Your task to perform on an android device: Open accessibility settings Image 0: 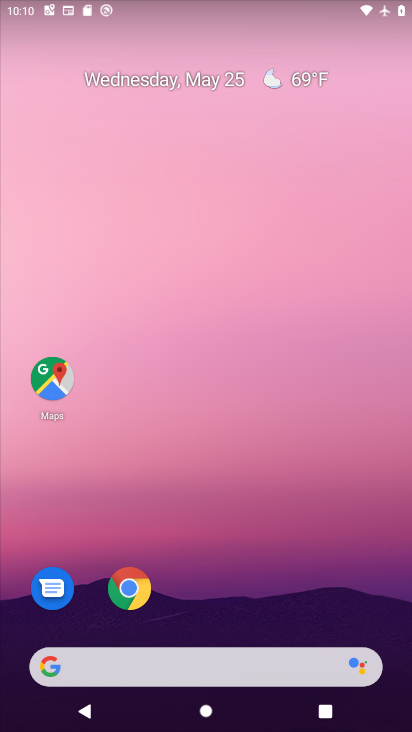
Step 0: drag from (370, 592) to (377, 161)
Your task to perform on an android device: Open accessibility settings Image 1: 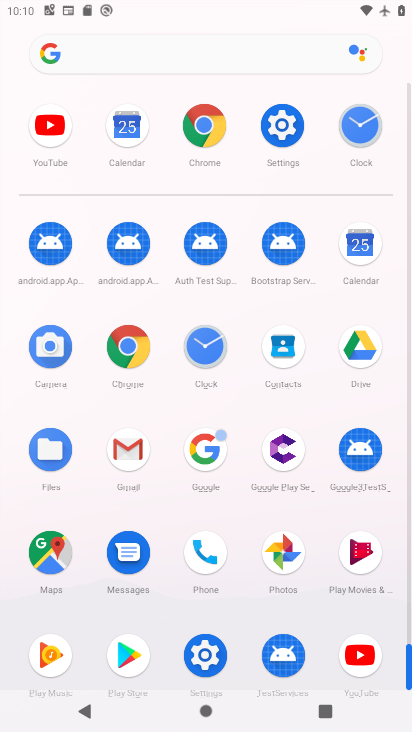
Step 1: click (290, 128)
Your task to perform on an android device: Open accessibility settings Image 2: 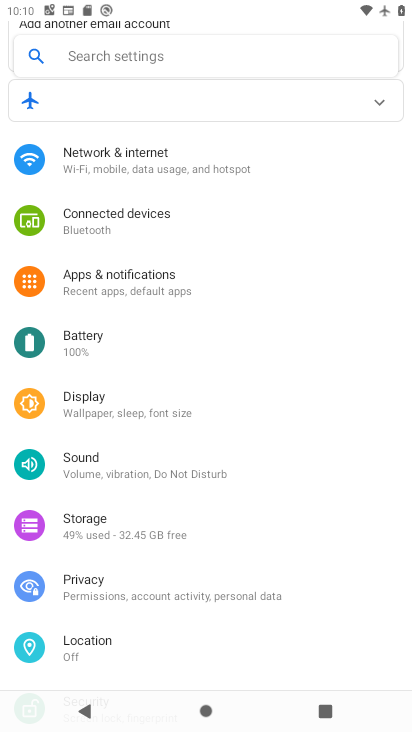
Step 2: drag from (338, 538) to (351, 377)
Your task to perform on an android device: Open accessibility settings Image 3: 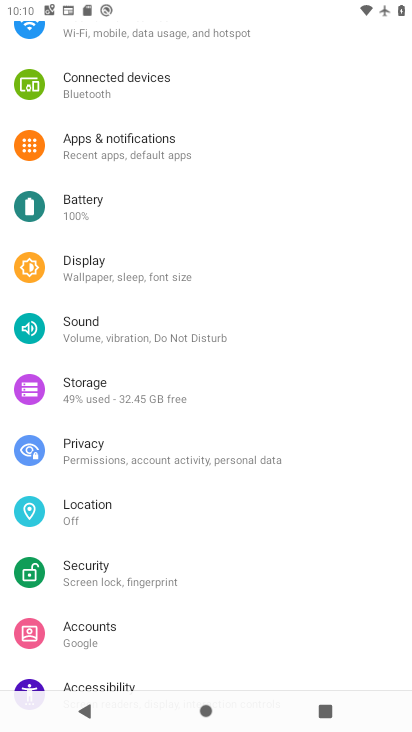
Step 3: drag from (338, 581) to (333, 438)
Your task to perform on an android device: Open accessibility settings Image 4: 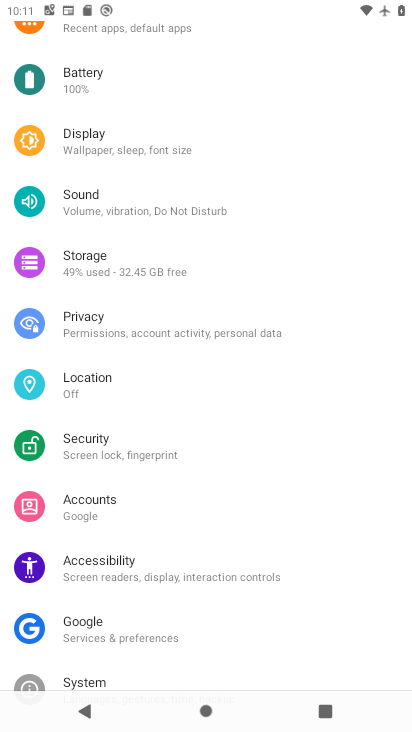
Step 4: drag from (299, 607) to (336, 478)
Your task to perform on an android device: Open accessibility settings Image 5: 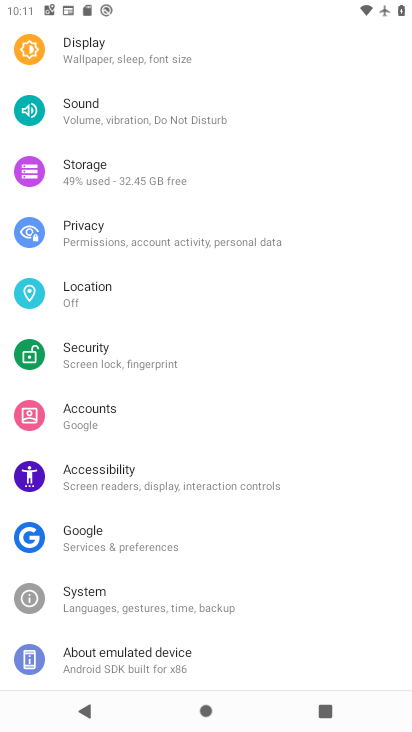
Step 5: drag from (328, 606) to (350, 497)
Your task to perform on an android device: Open accessibility settings Image 6: 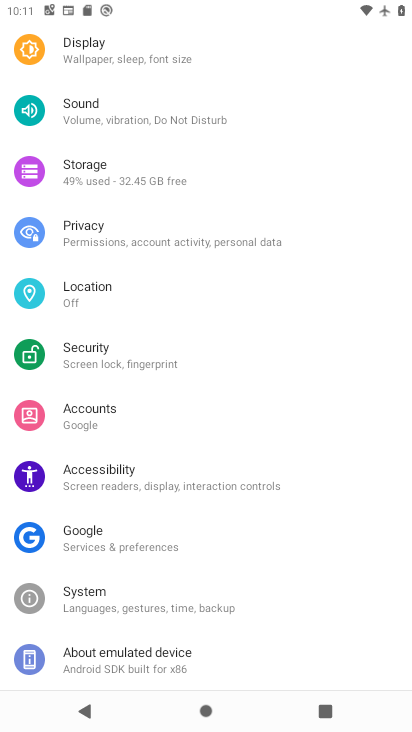
Step 6: drag from (344, 545) to (367, 382)
Your task to perform on an android device: Open accessibility settings Image 7: 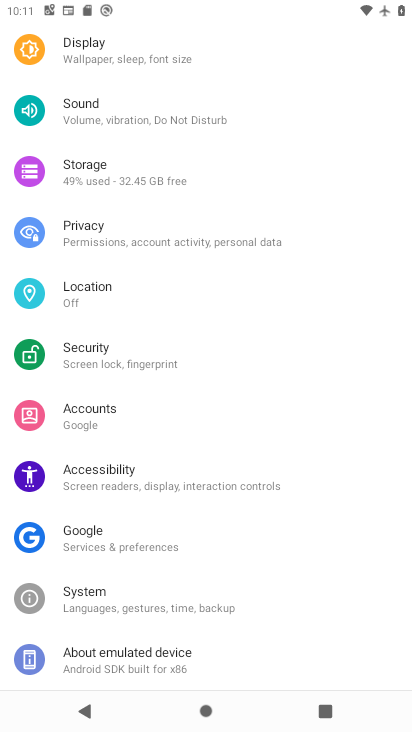
Step 7: drag from (357, 572) to (352, 419)
Your task to perform on an android device: Open accessibility settings Image 8: 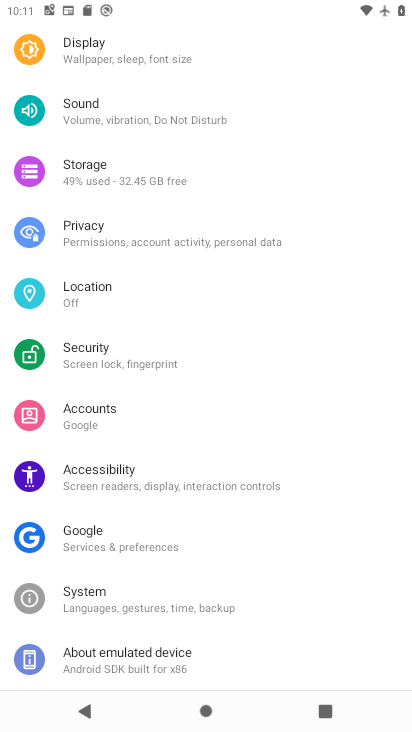
Step 8: click (265, 501)
Your task to perform on an android device: Open accessibility settings Image 9: 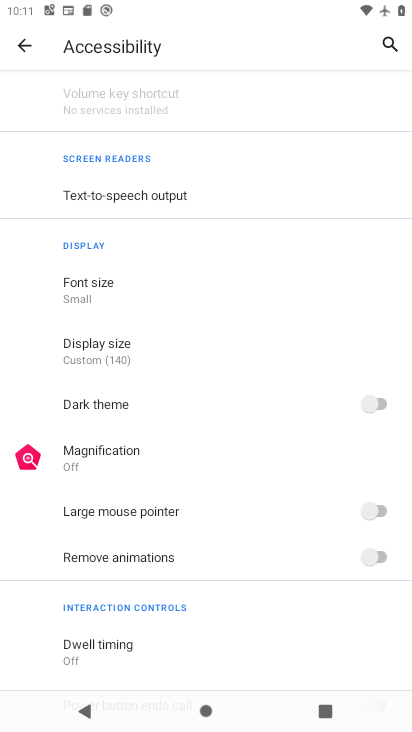
Step 9: task complete